Your task to perform on an android device: open device folders in google photos Image 0: 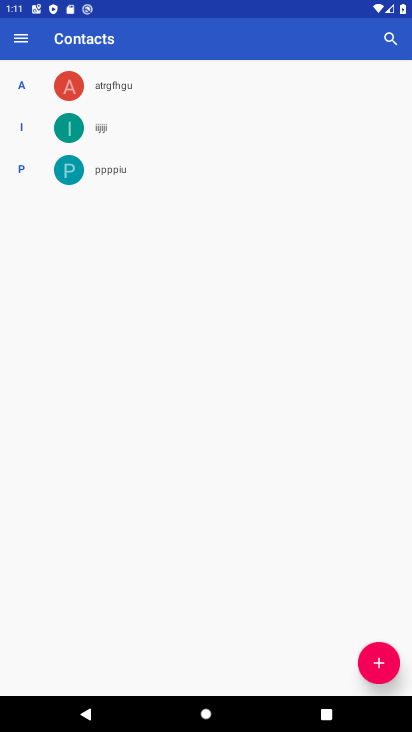
Step 0: press home button
Your task to perform on an android device: open device folders in google photos Image 1: 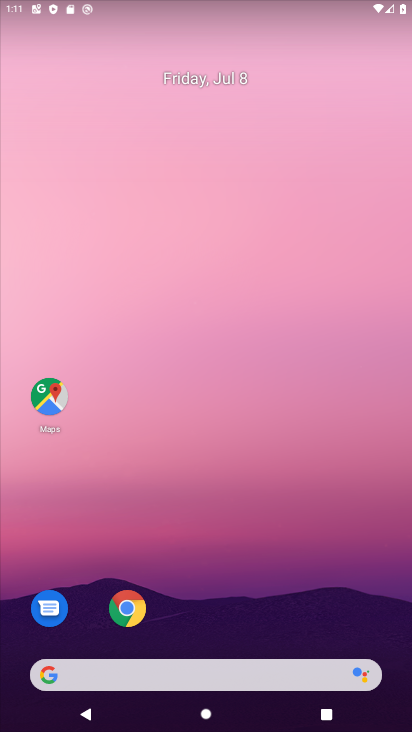
Step 1: drag from (394, 650) to (346, 34)
Your task to perform on an android device: open device folders in google photos Image 2: 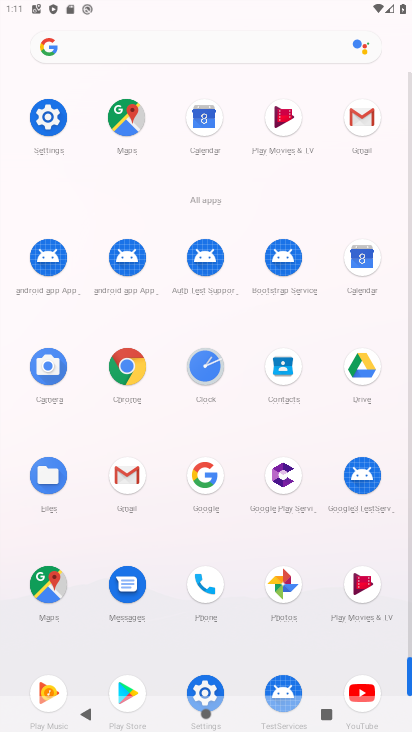
Step 2: click (284, 585)
Your task to perform on an android device: open device folders in google photos Image 3: 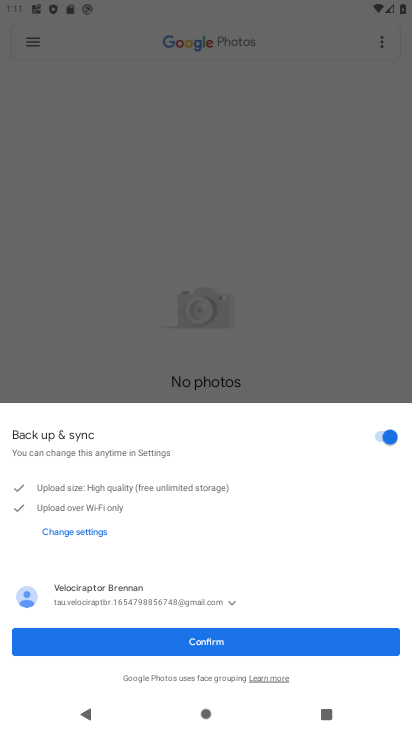
Step 3: click (199, 641)
Your task to perform on an android device: open device folders in google photos Image 4: 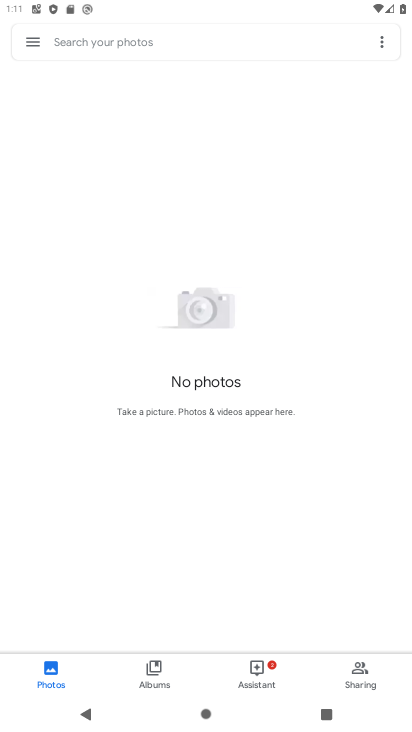
Step 4: click (29, 40)
Your task to perform on an android device: open device folders in google photos Image 5: 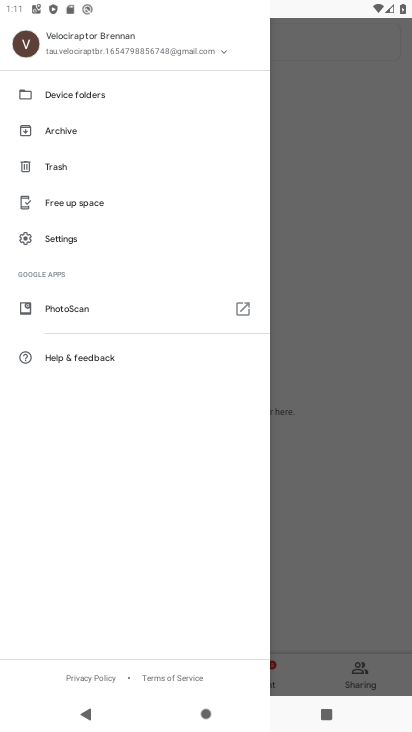
Step 5: click (63, 99)
Your task to perform on an android device: open device folders in google photos Image 6: 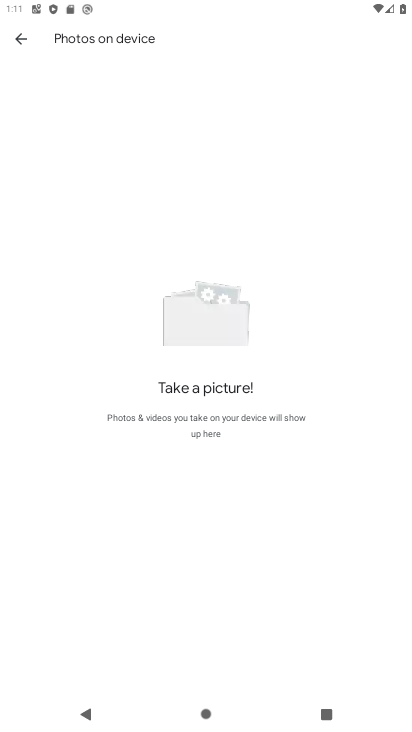
Step 6: task complete